Your task to perform on an android device: uninstall "Upside-Cash back on gas & food" Image 0: 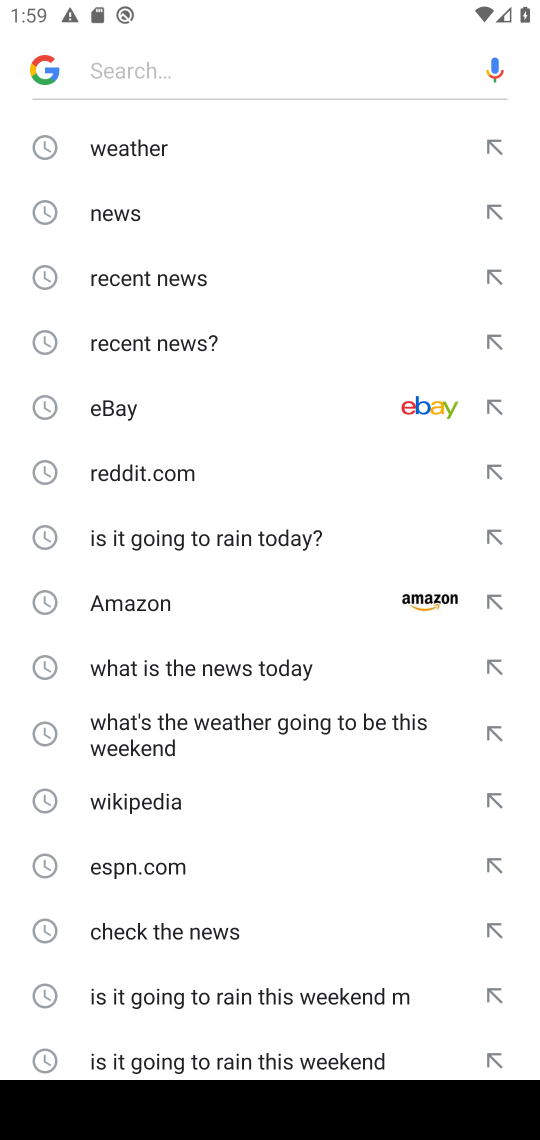
Step 0: press home button
Your task to perform on an android device: uninstall "Upside-Cash back on gas & food" Image 1: 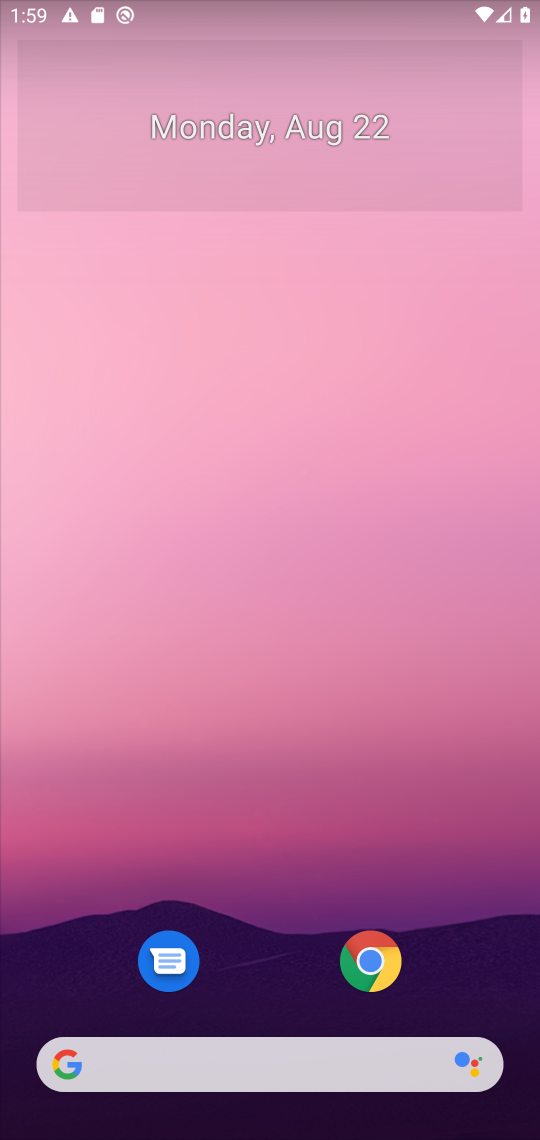
Step 1: drag from (478, 779) to (484, 182)
Your task to perform on an android device: uninstall "Upside-Cash back on gas & food" Image 2: 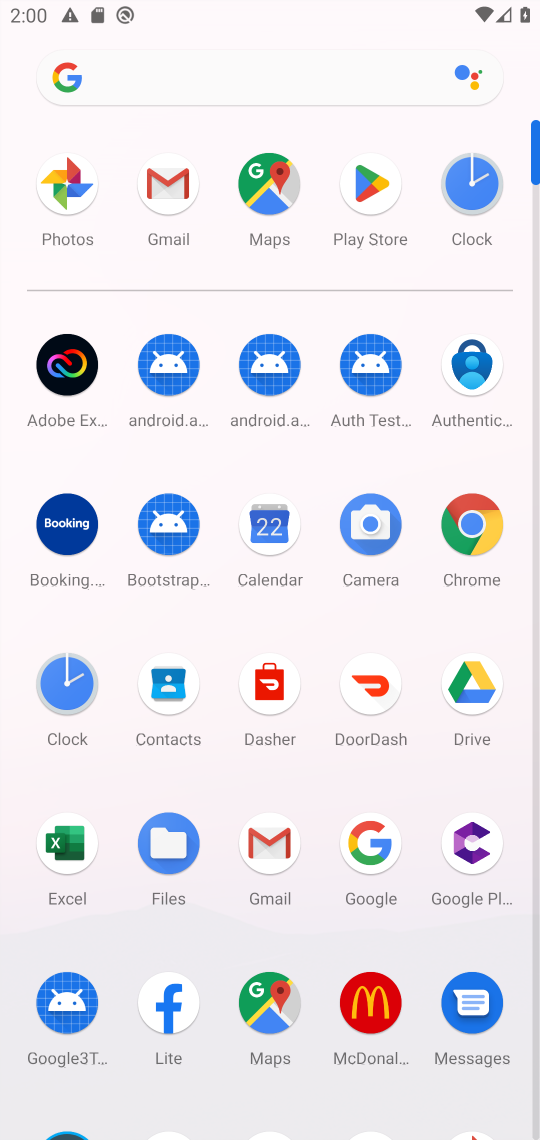
Step 2: click (367, 176)
Your task to perform on an android device: uninstall "Upside-Cash back on gas & food" Image 3: 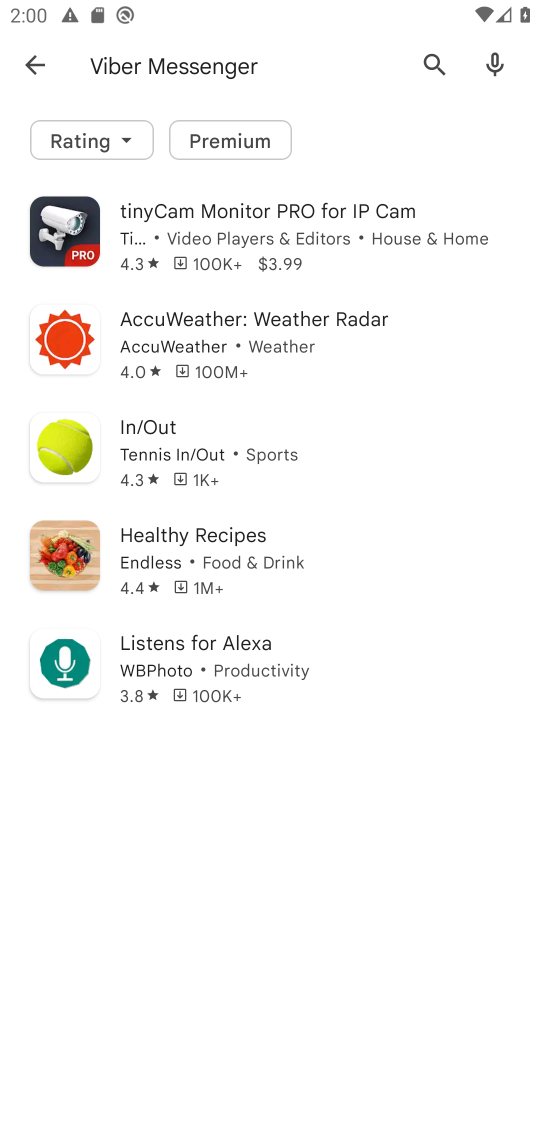
Step 3: press back button
Your task to perform on an android device: uninstall "Upside-Cash back on gas & food" Image 4: 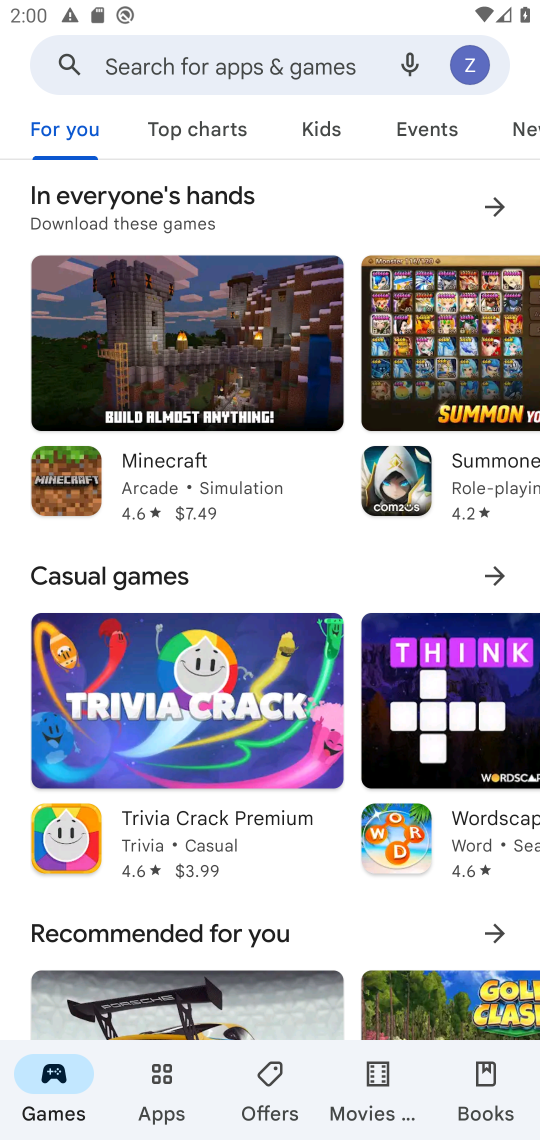
Step 4: click (258, 53)
Your task to perform on an android device: uninstall "Upside-Cash back on gas & food" Image 5: 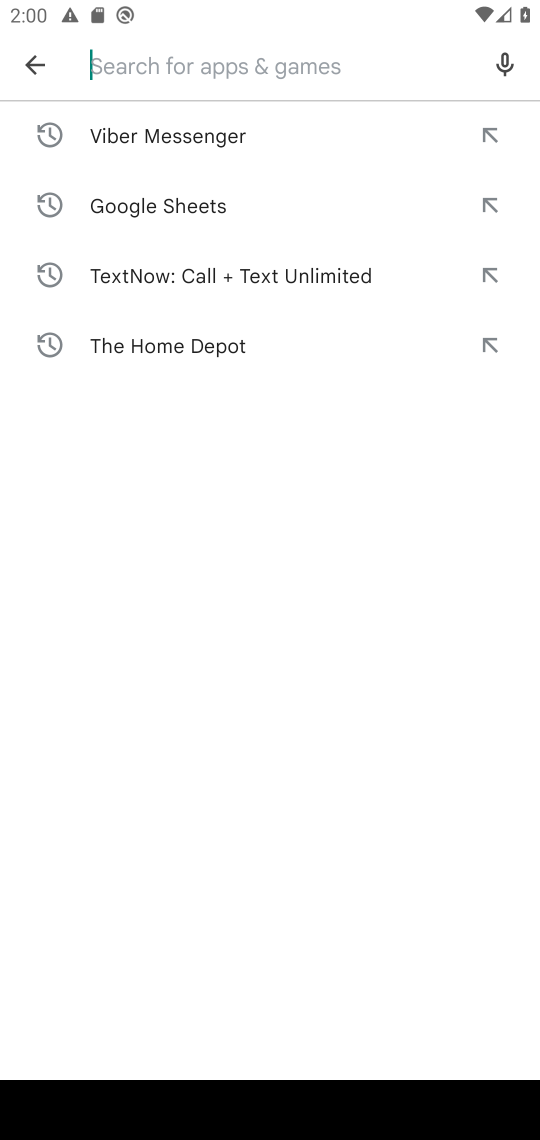
Step 5: type "Upside-Cash back on gas & food"
Your task to perform on an android device: uninstall "Upside-Cash back on gas & food" Image 6: 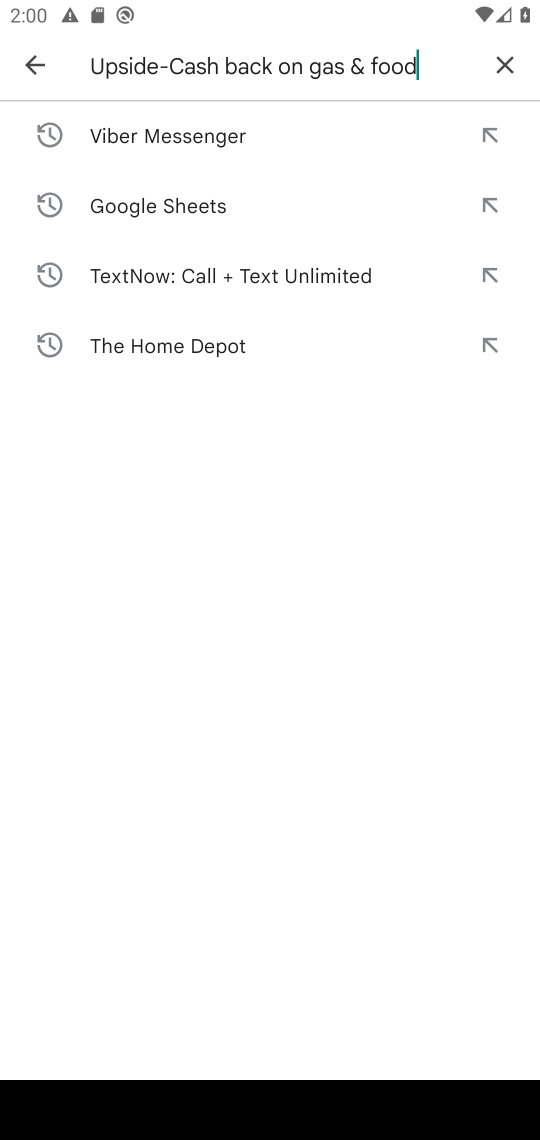
Step 6: press enter
Your task to perform on an android device: uninstall "Upside-Cash back on gas & food" Image 7: 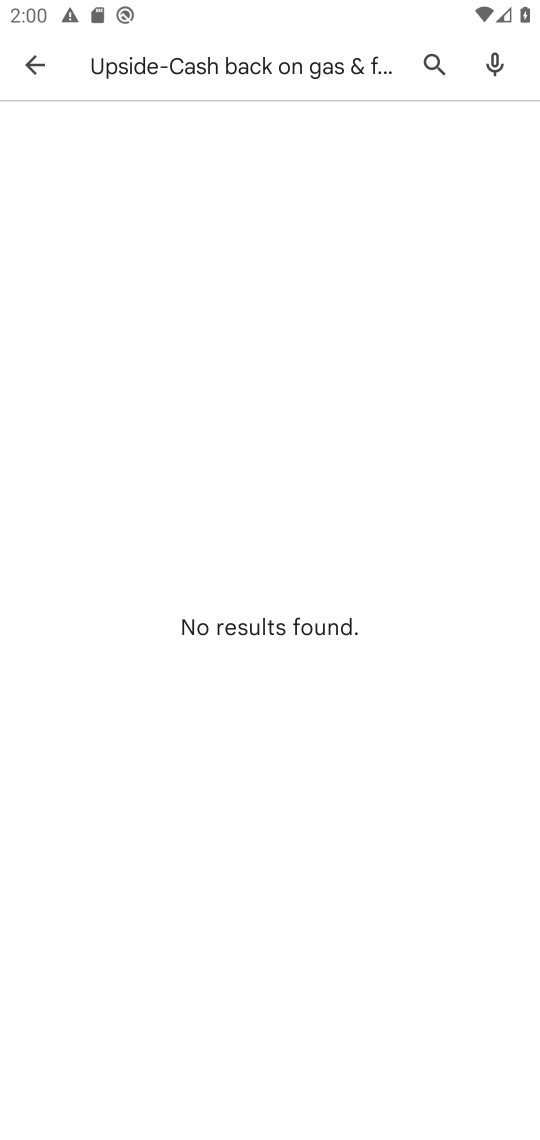
Step 7: task complete